Your task to perform on an android device: View the shopping cart on target. Image 0: 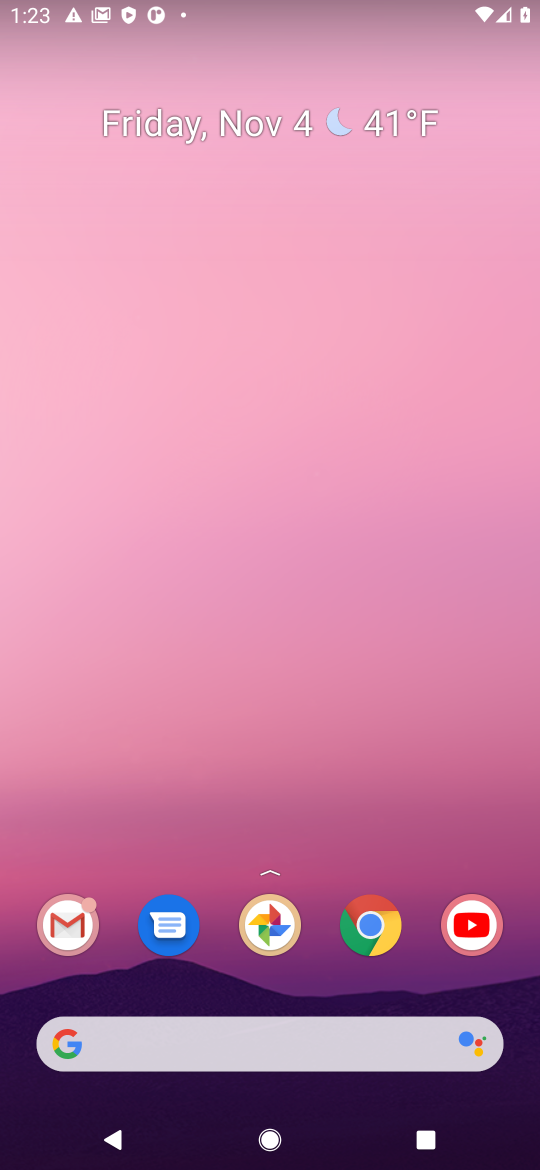
Step 0: click (370, 928)
Your task to perform on an android device: View the shopping cart on target. Image 1: 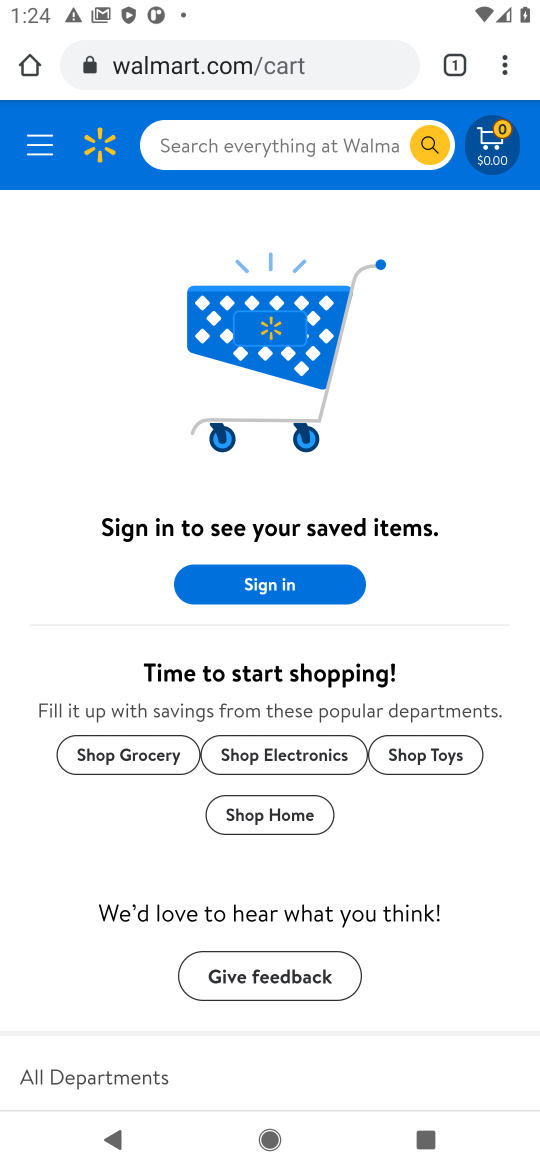
Step 1: click (230, 61)
Your task to perform on an android device: View the shopping cart on target. Image 2: 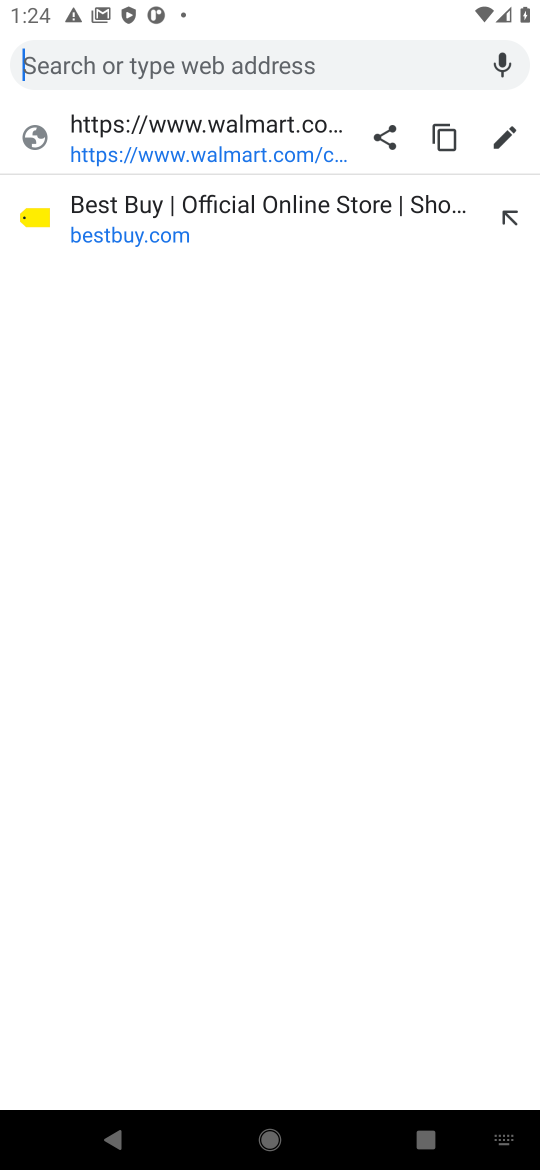
Step 2: type "target"
Your task to perform on an android device: View the shopping cart on target. Image 3: 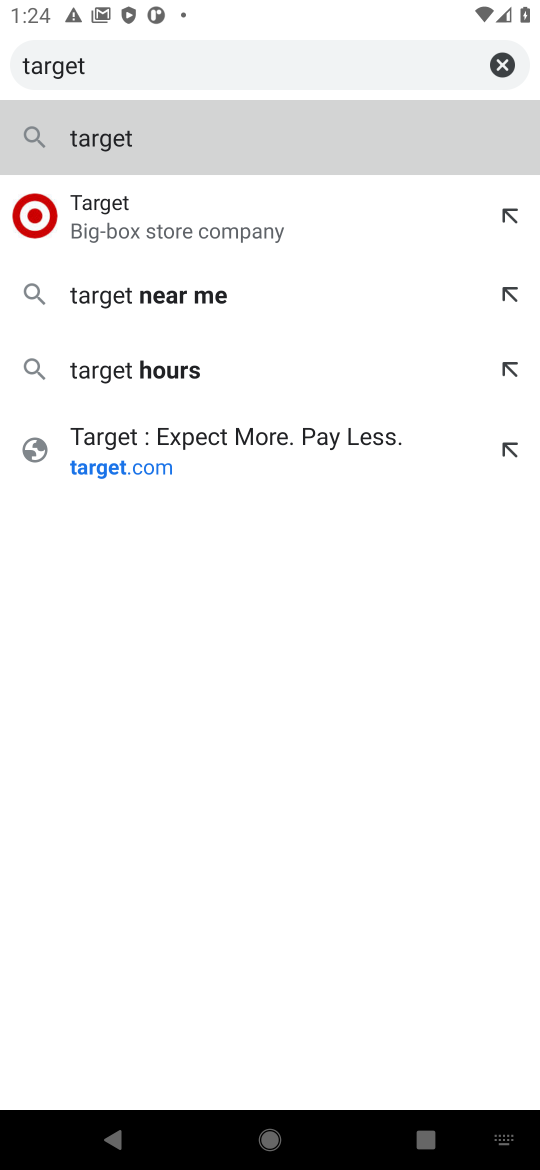
Step 3: press enter
Your task to perform on an android device: View the shopping cart on target. Image 4: 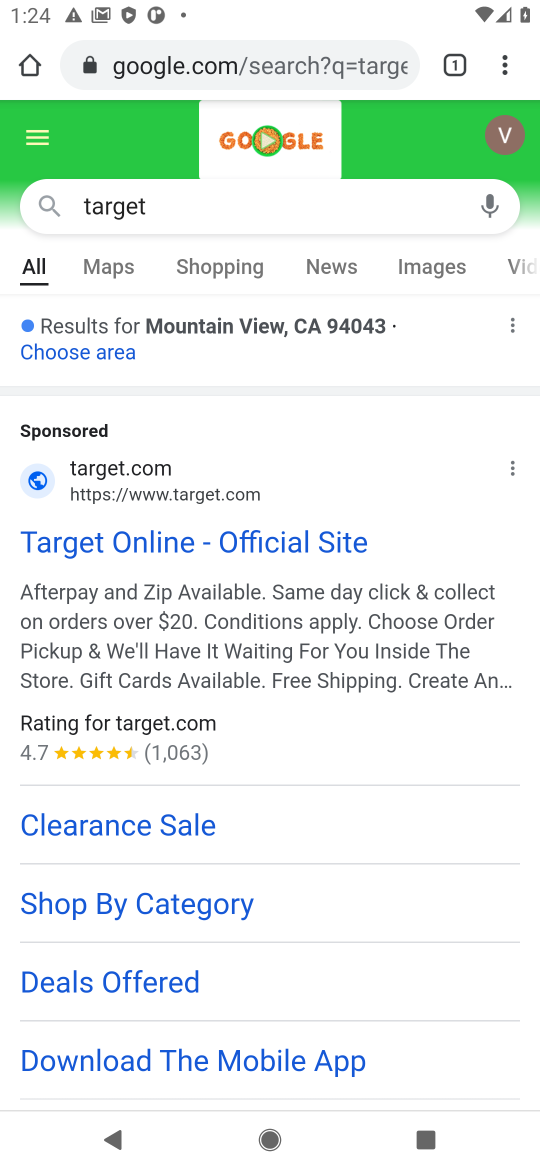
Step 4: drag from (216, 944) to (275, 591)
Your task to perform on an android device: View the shopping cart on target. Image 5: 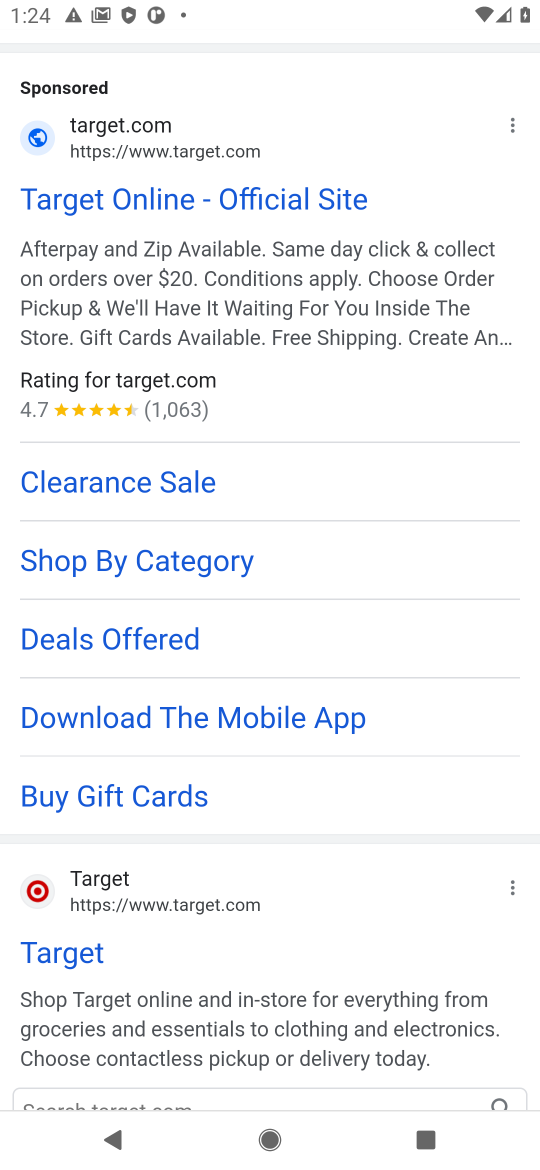
Step 5: click (166, 895)
Your task to perform on an android device: View the shopping cart on target. Image 6: 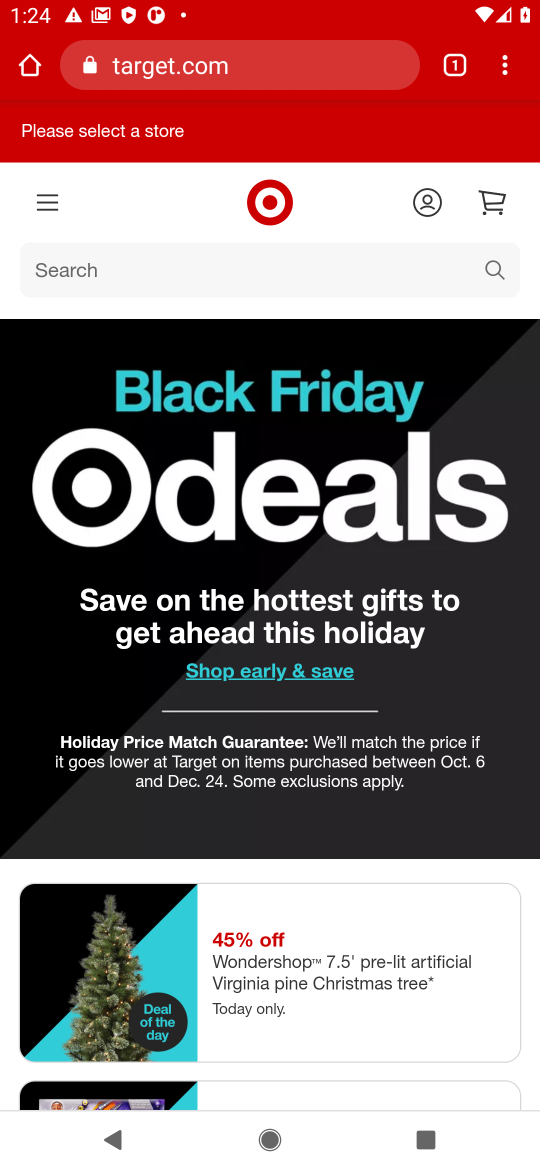
Step 6: click (481, 198)
Your task to perform on an android device: View the shopping cart on target. Image 7: 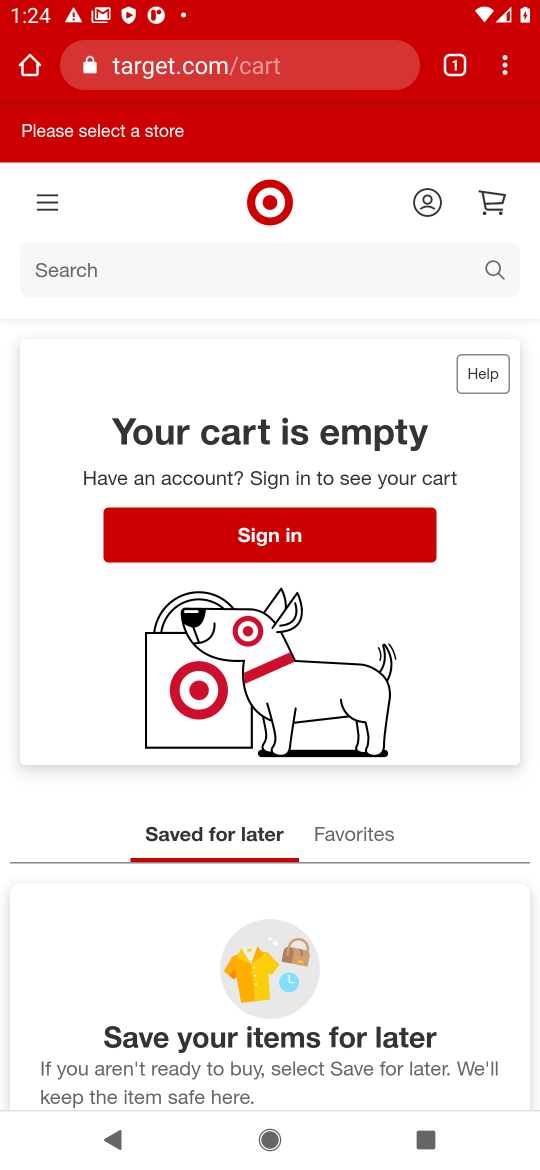
Step 7: task complete